Your task to perform on an android device: set the stopwatch Image 0: 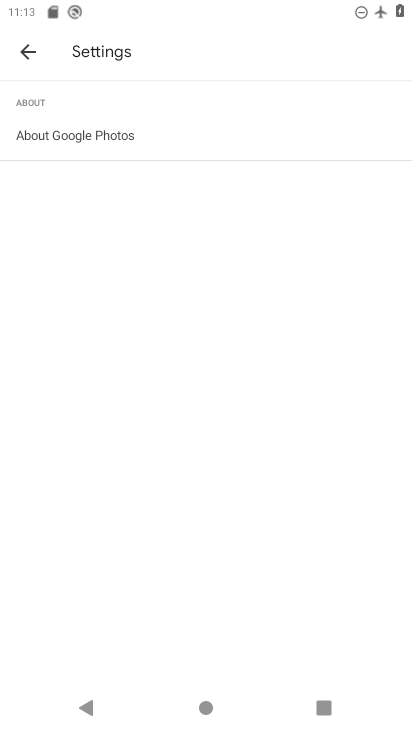
Step 0: press home button
Your task to perform on an android device: set the stopwatch Image 1: 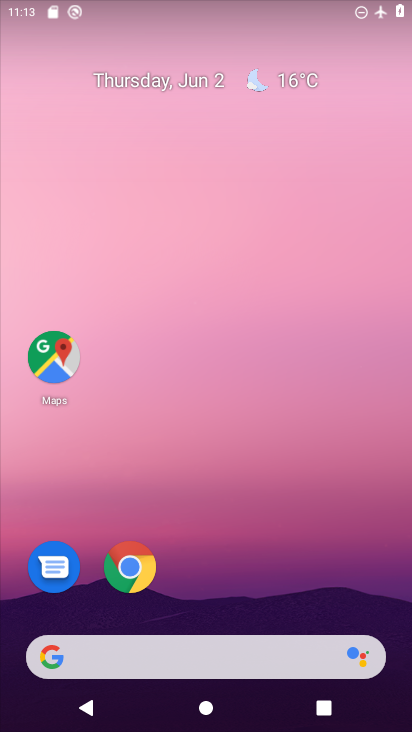
Step 1: drag from (153, 704) to (188, 52)
Your task to perform on an android device: set the stopwatch Image 2: 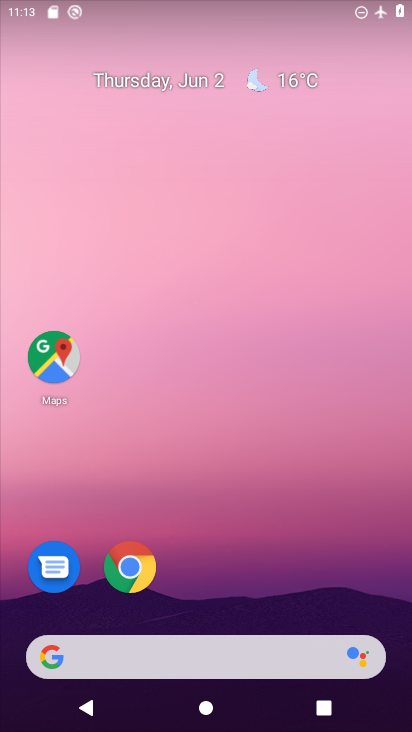
Step 2: drag from (137, 731) to (163, 10)
Your task to perform on an android device: set the stopwatch Image 3: 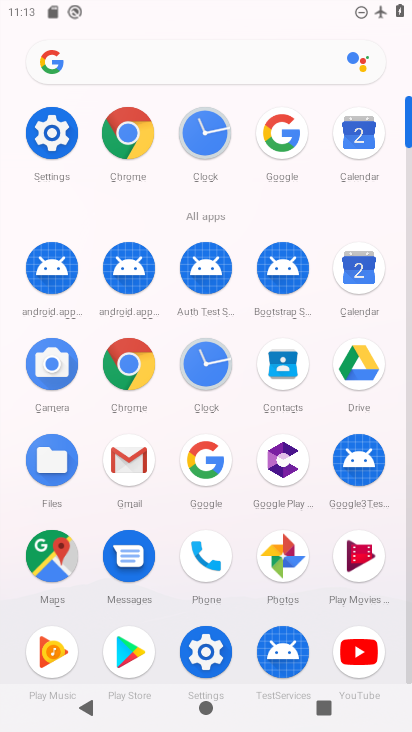
Step 3: click (214, 141)
Your task to perform on an android device: set the stopwatch Image 4: 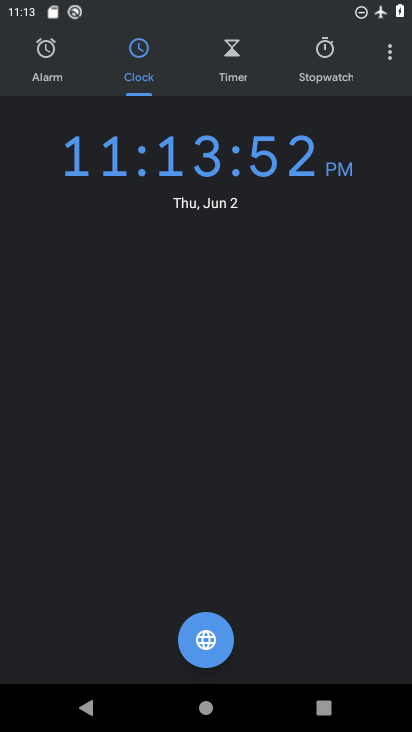
Step 4: click (340, 69)
Your task to perform on an android device: set the stopwatch Image 5: 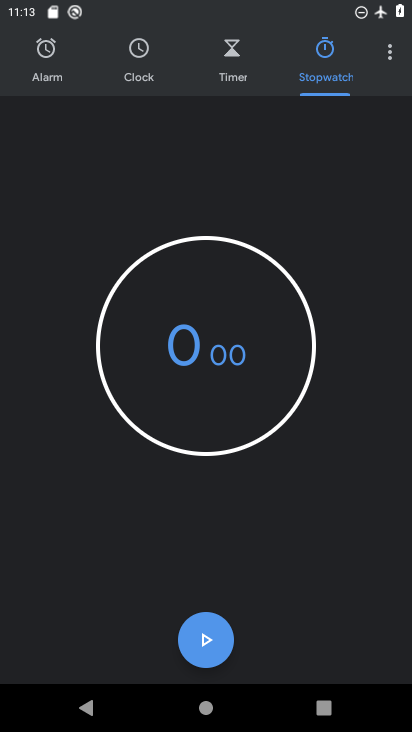
Step 5: click (201, 650)
Your task to perform on an android device: set the stopwatch Image 6: 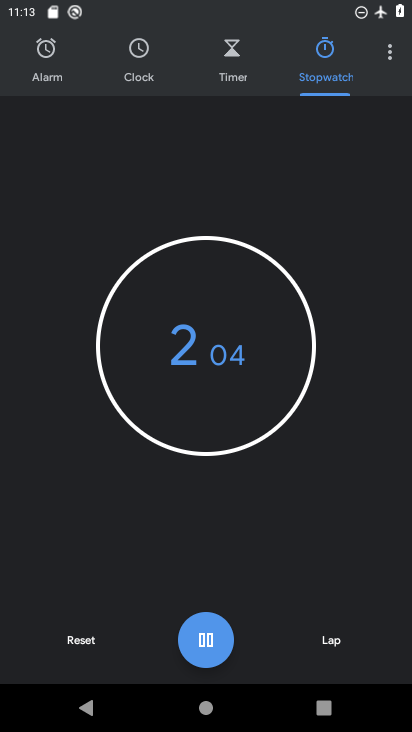
Step 6: click (201, 650)
Your task to perform on an android device: set the stopwatch Image 7: 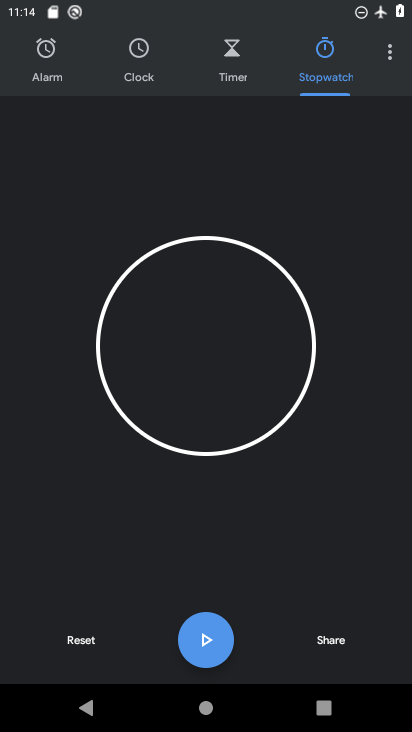
Step 7: task complete